Your task to perform on an android device: turn on improve location accuracy Image 0: 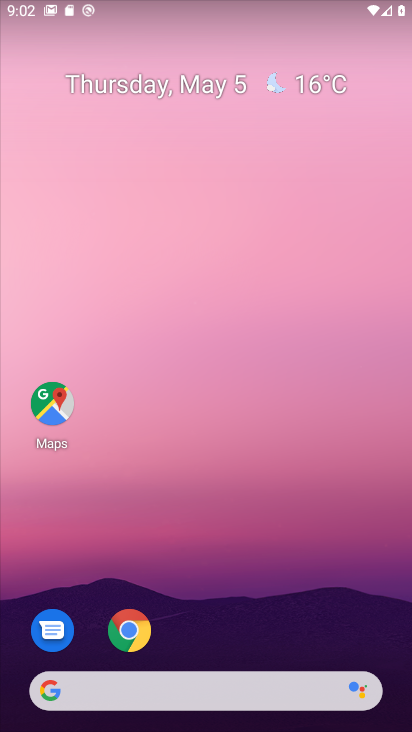
Step 0: drag from (271, 563) to (270, 4)
Your task to perform on an android device: turn on improve location accuracy Image 1: 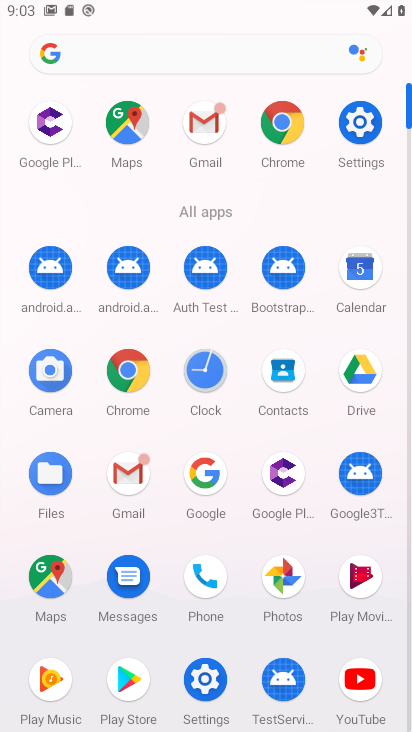
Step 1: click (358, 126)
Your task to perform on an android device: turn on improve location accuracy Image 2: 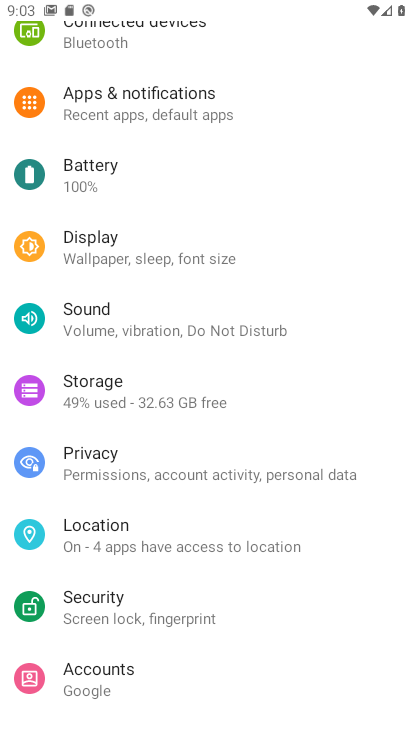
Step 2: drag from (178, 214) to (190, 670)
Your task to perform on an android device: turn on improve location accuracy Image 3: 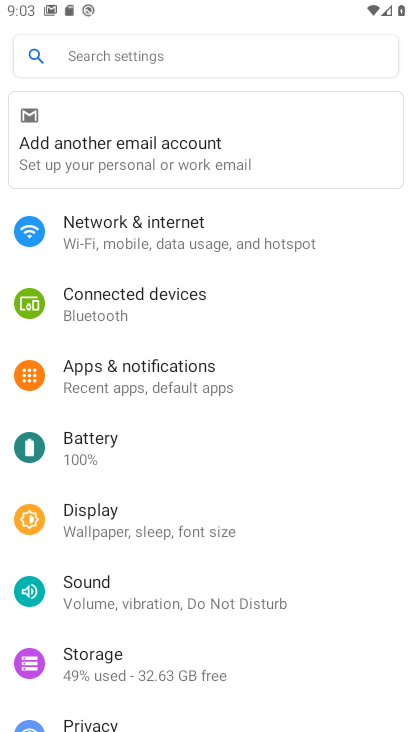
Step 3: drag from (229, 661) to (302, 132)
Your task to perform on an android device: turn on improve location accuracy Image 4: 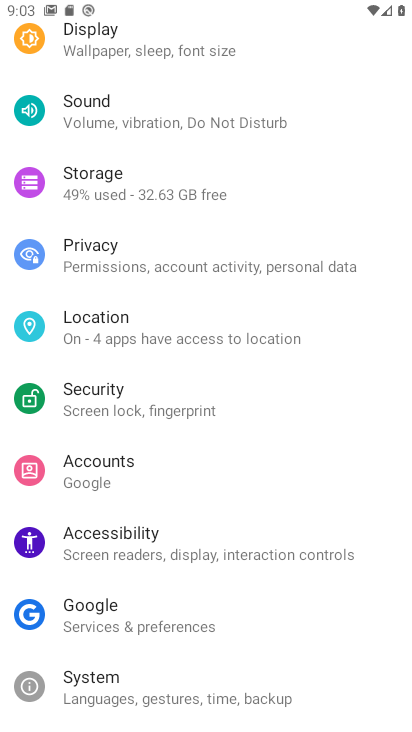
Step 4: click (109, 356)
Your task to perform on an android device: turn on improve location accuracy Image 5: 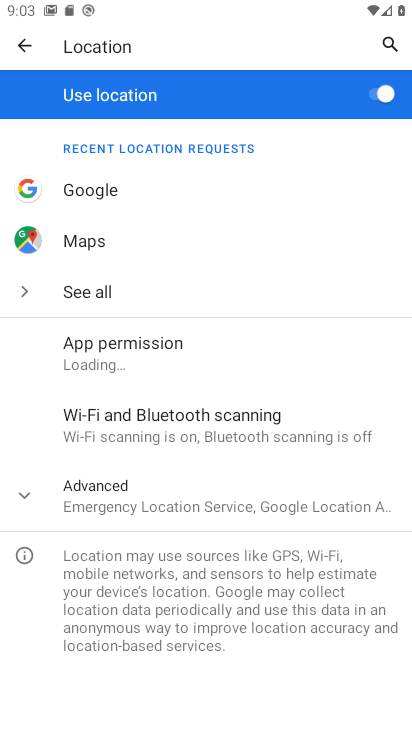
Step 5: drag from (195, 601) to (278, 260)
Your task to perform on an android device: turn on improve location accuracy Image 6: 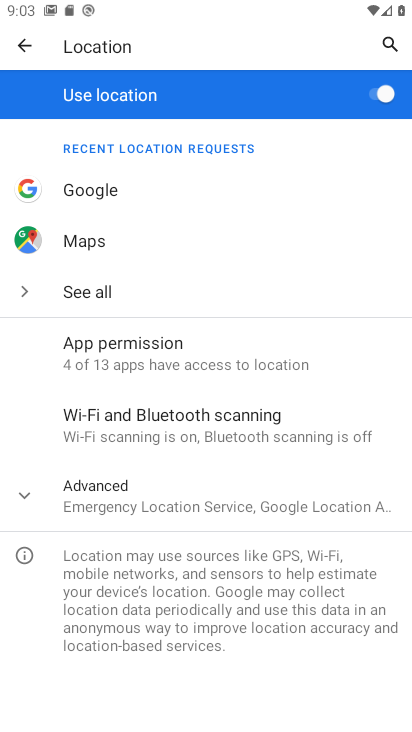
Step 6: click (137, 498)
Your task to perform on an android device: turn on improve location accuracy Image 7: 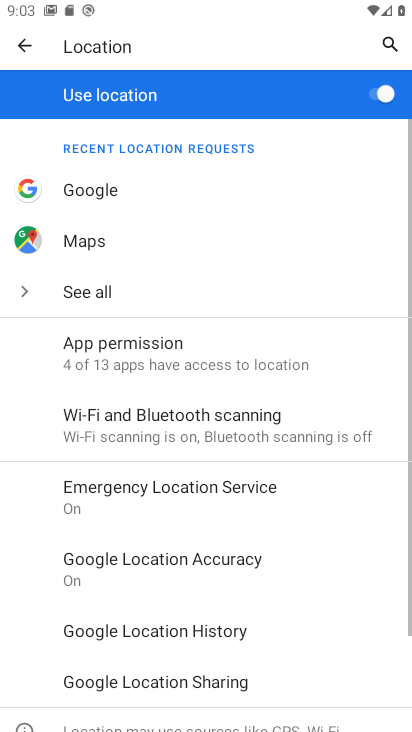
Step 7: drag from (154, 615) to (187, 174)
Your task to perform on an android device: turn on improve location accuracy Image 8: 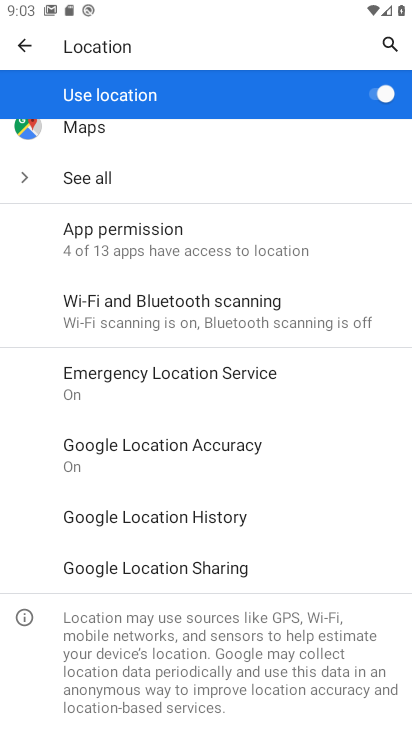
Step 8: click (162, 450)
Your task to perform on an android device: turn on improve location accuracy Image 9: 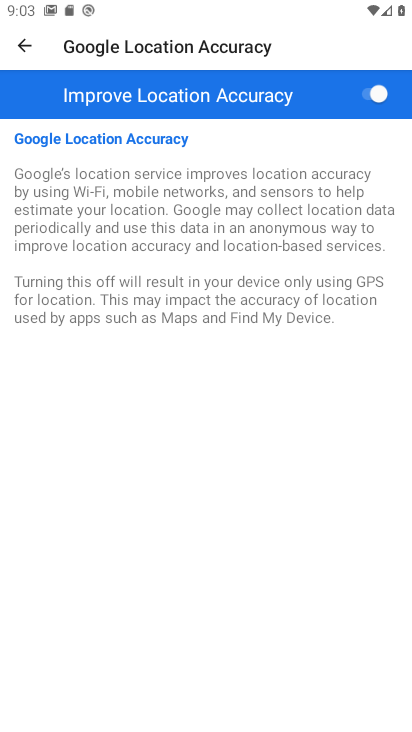
Step 9: task complete